Your task to perform on an android device: Search for Mexican restaurants on Maps Image 0: 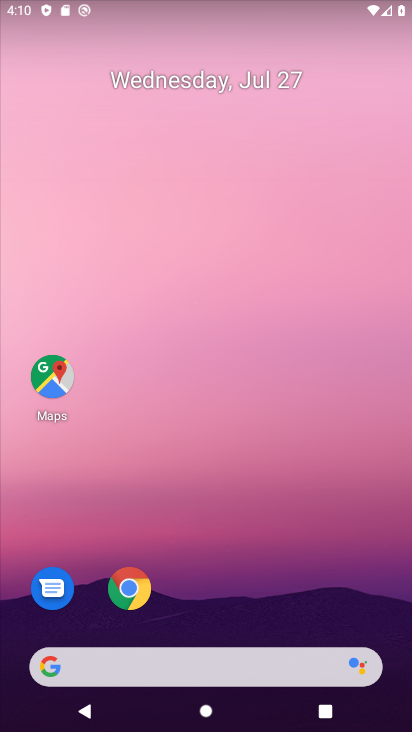
Step 0: click (216, 216)
Your task to perform on an android device: Search for Mexican restaurants on Maps Image 1: 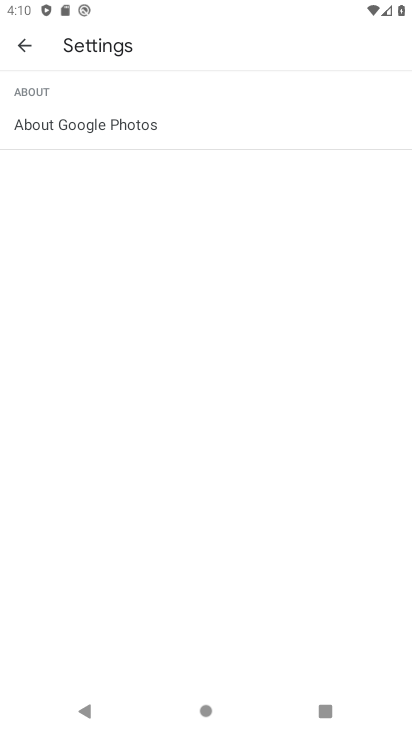
Step 1: press home button
Your task to perform on an android device: Search for Mexican restaurants on Maps Image 2: 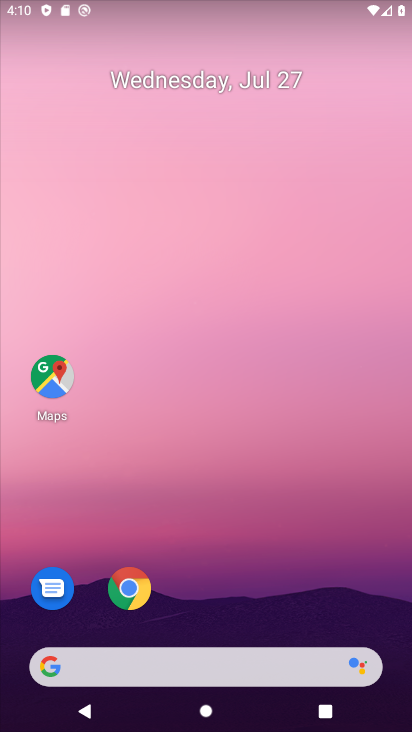
Step 2: drag from (214, 728) to (216, 209)
Your task to perform on an android device: Search for Mexican restaurants on Maps Image 3: 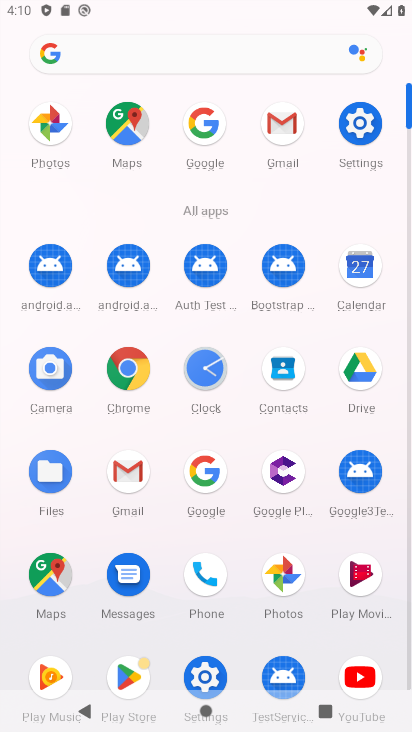
Step 3: click (55, 568)
Your task to perform on an android device: Search for Mexican restaurants on Maps Image 4: 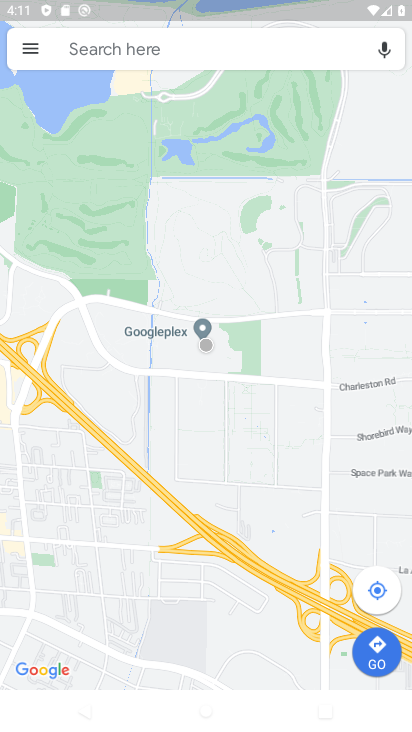
Step 4: click (226, 44)
Your task to perform on an android device: Search for Mexican restaurants on Maps Image 5: 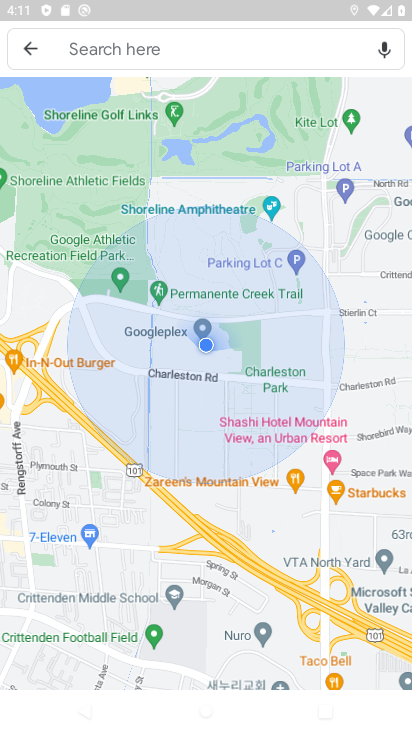
Step 5: click (209, 51)
Your task to perform on an android device: Search for Mexican restaurants on Maps Image 6: 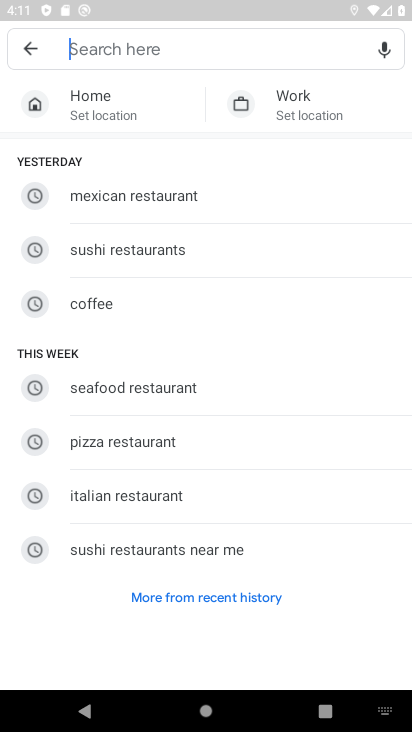
Step 6: type "mexican restaurants"
Your task to perform on an android device: Search for Mexican restaurants on Maps Image 7: 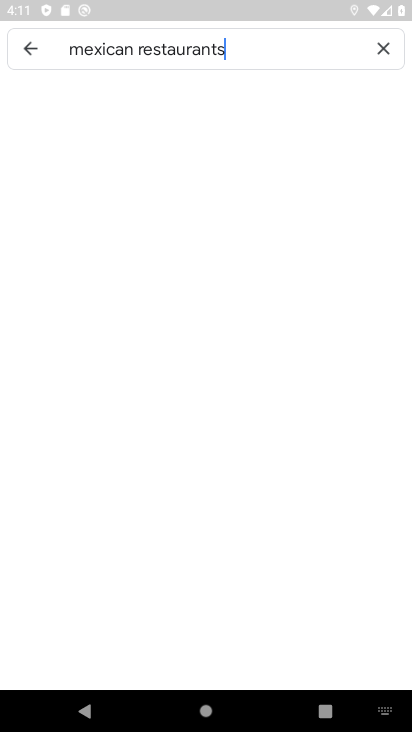
Step 7: type ""
Your task to perform on an android device: Search for Mexican restaurants on Maps Image 8: 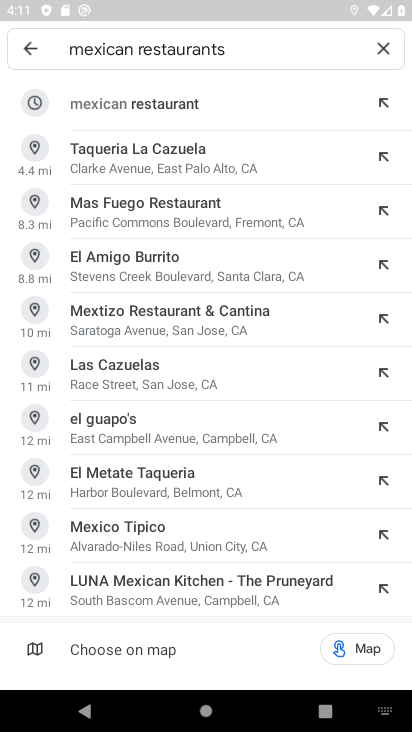
Step 8: click (162, 109)
Your task to perform on an android device: Search for Mexican restaurants on Maps Image 9: 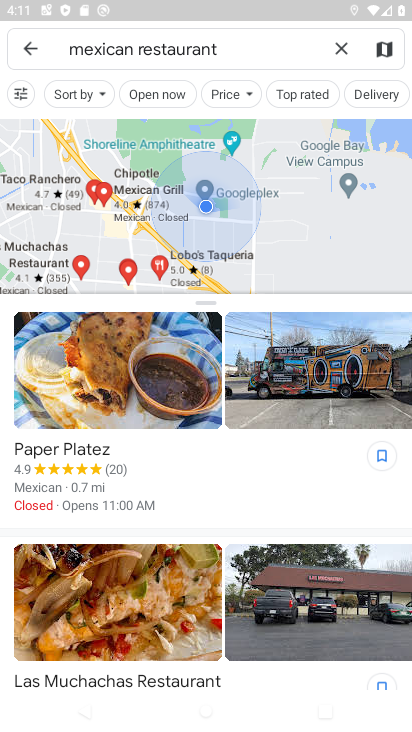
Step 9: task complete